Your task to perform on an android device: Go to eBay Image 0: 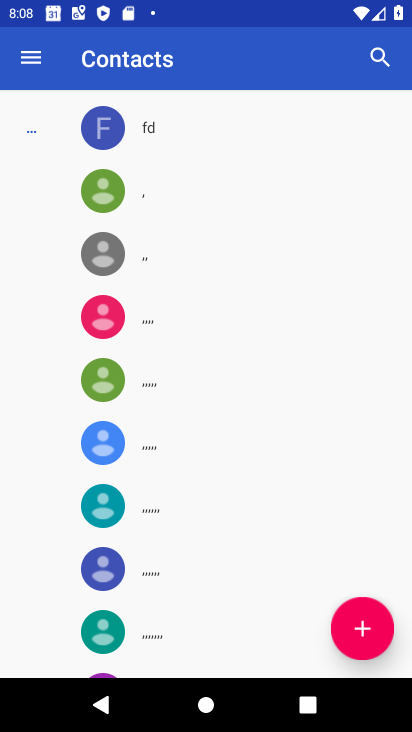
Step 0: press home button
Your task to perform on an android device: Go to eBay Image 1: 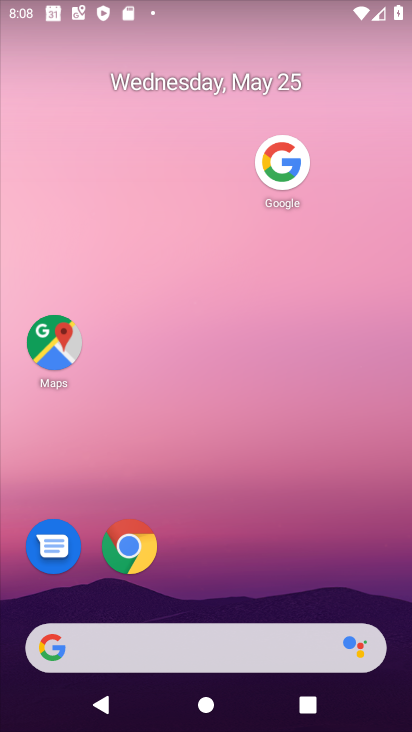
Step 1: click (134, 541)
Your task to perform on an android device: Go to eBay Image 2: 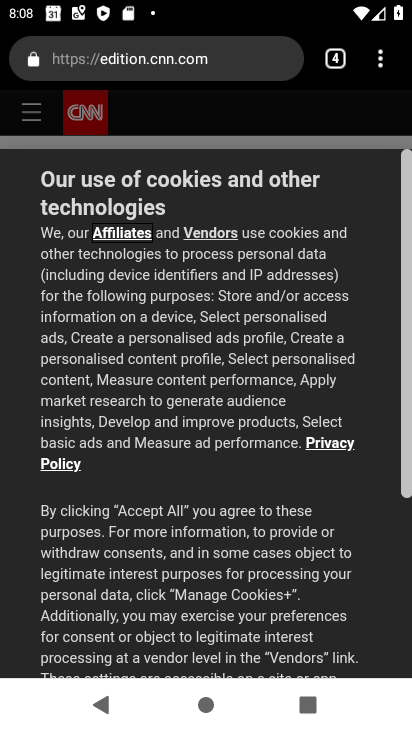
Step 2: drag from (385, 61) to (305, 116)
Your task to perform on an android device: Go to eBay Image 3: 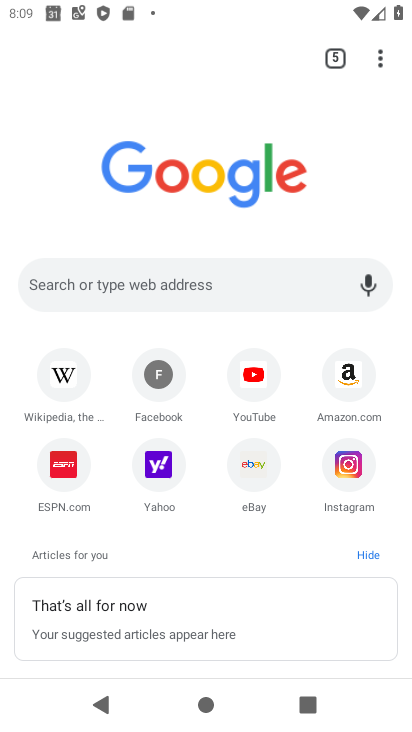
Step 3: click (256, 463)
Your task to perform on an android device: Go to eBay Image 4: 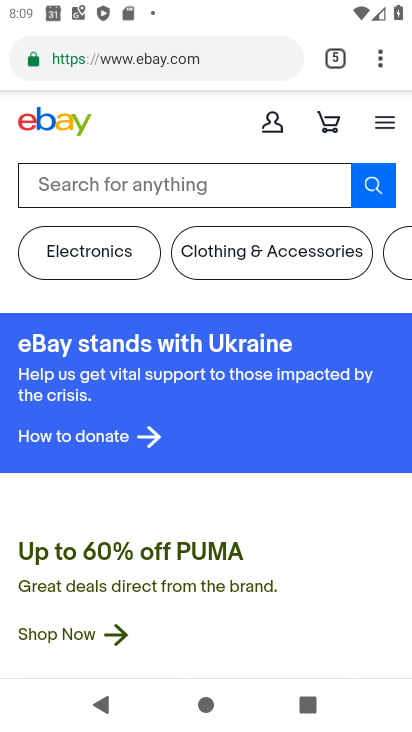
Step 4: task complete